Your task to perform on an android device: turn on the 12-hour format for clock Image 0: 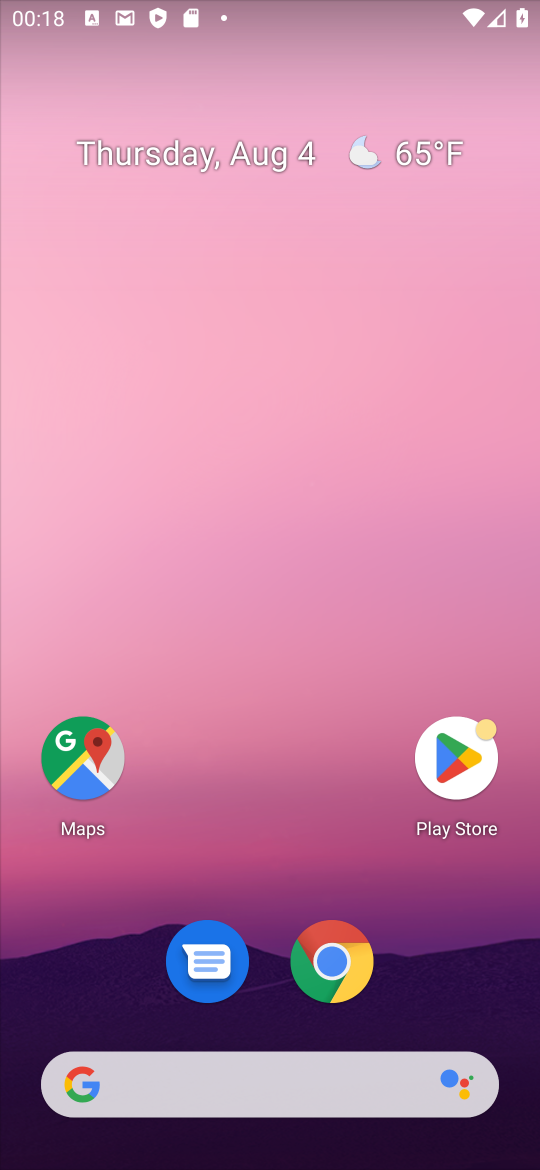
Step 0: drag from (268, 769) to (276, 15)
Your task to perform on an android device: turn on the 12-hour format for clock Image 1: 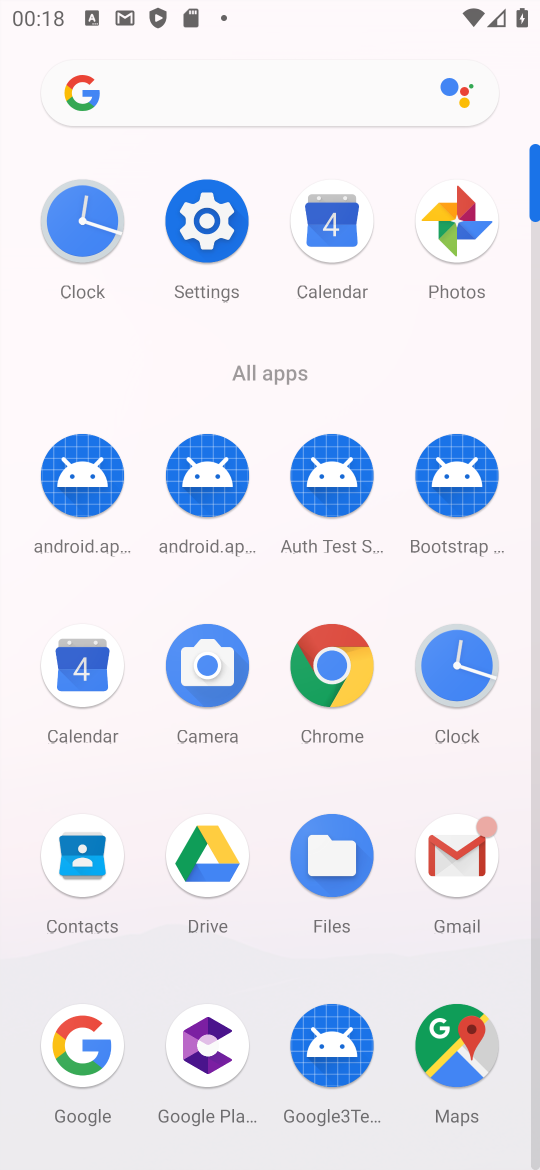
Step 1: click (85, 221)
Your task to perform on an android device: turn on the 12-hour format for clock Image 2: 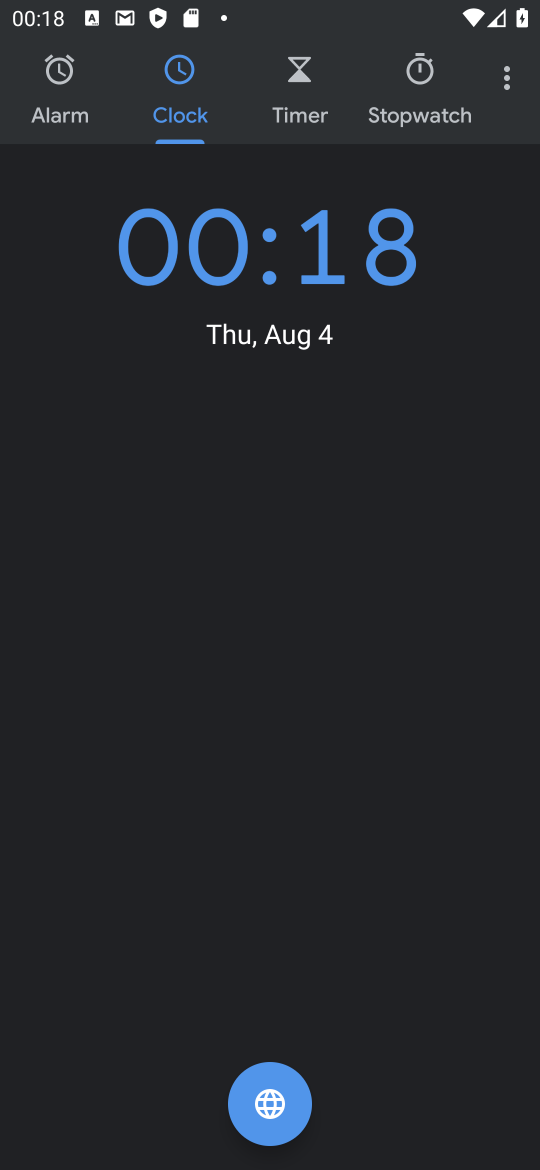
Step 2: click (502, 79)
Your task to perform on an android device: turn on the 12-hour format for clock Image 3: 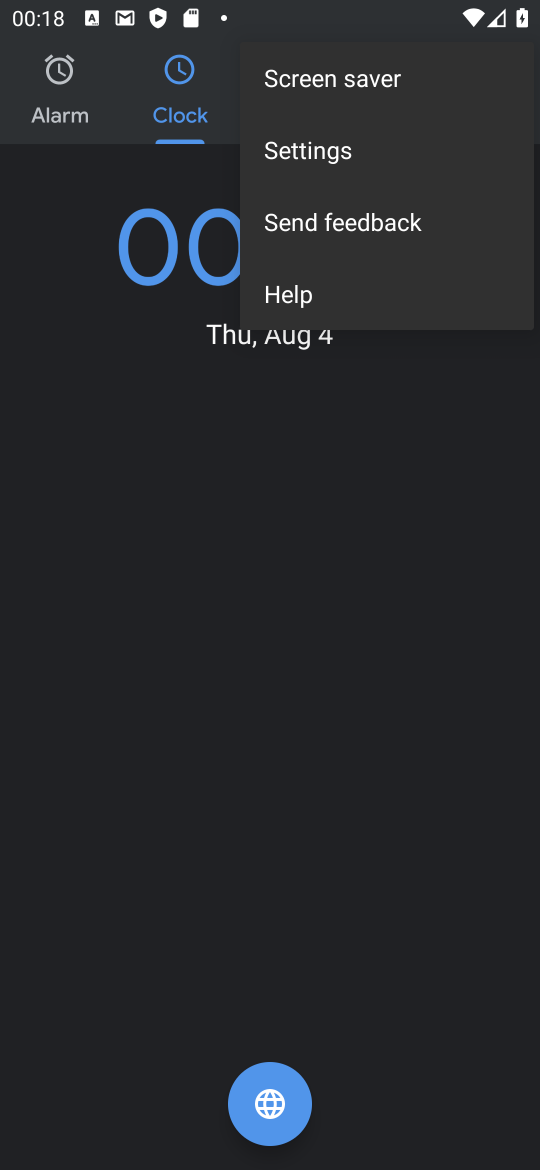
Step 3: click (369, 151)
Your task to perform on an android device: turn on the 12-hour format for clock Image 4: 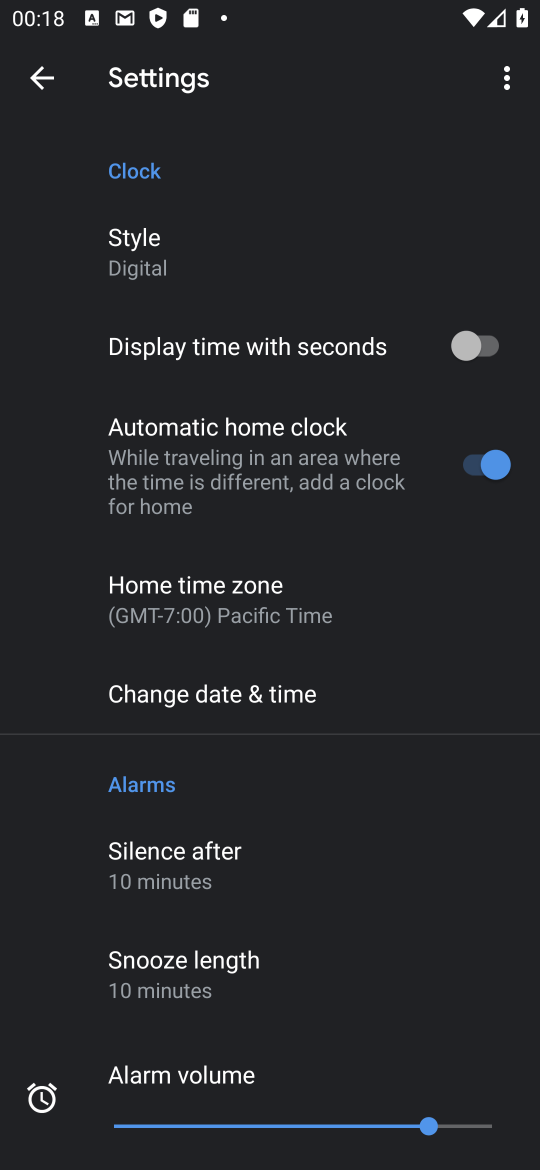
Step 4: click (346, 704)
Your task to perform on an android device: turn on the 12-hour format for clock Image 5: 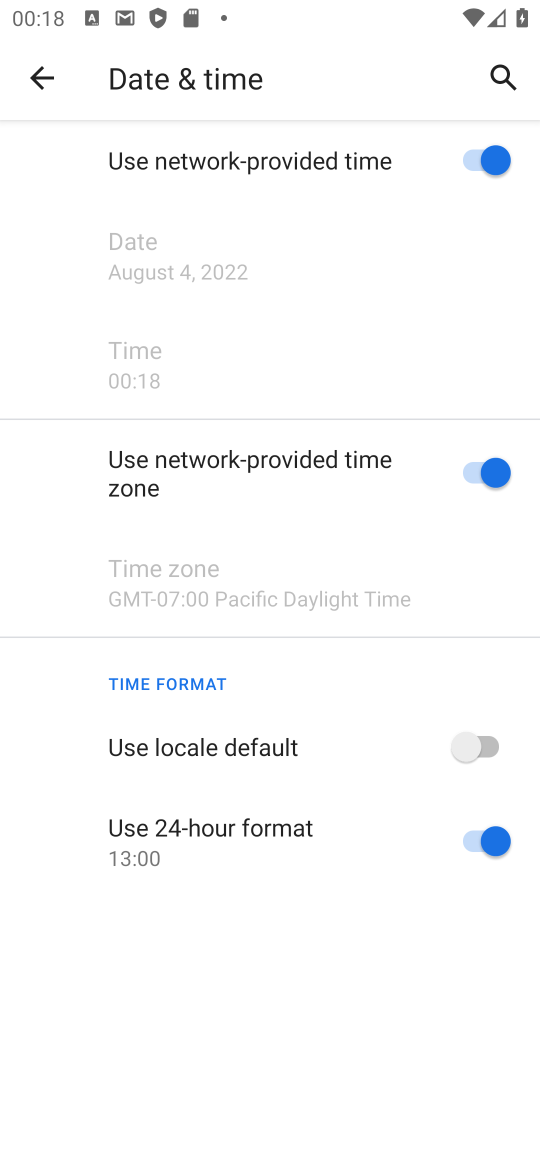
Step 5: click (467, 732)
Your task to perform on an android device: turn on the 12-hour format for clock Image 6: 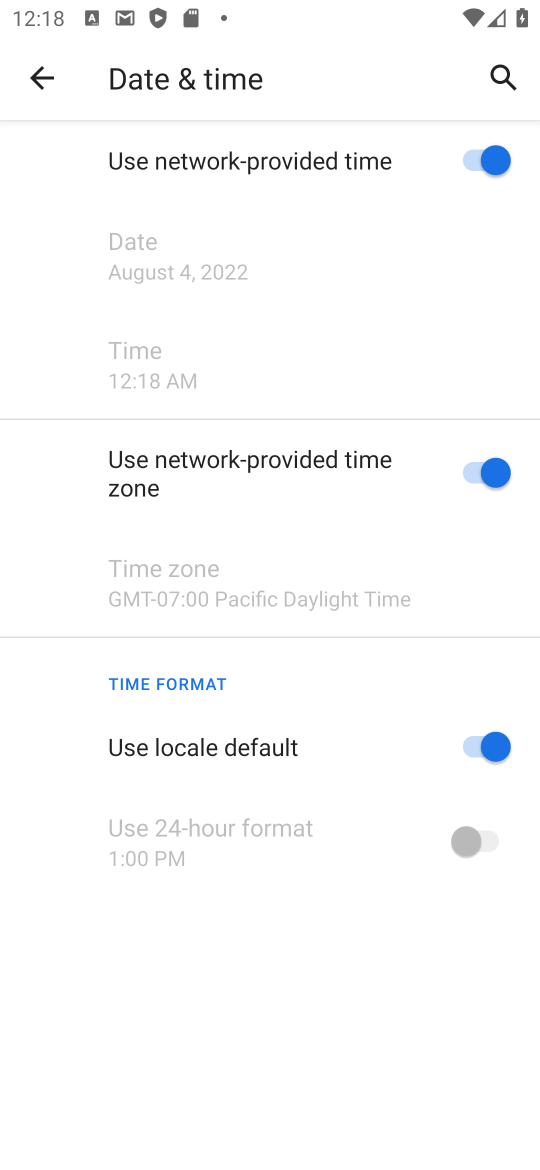
Step 6: task complete